Your task to perform on an android device: check battery use Image 0: 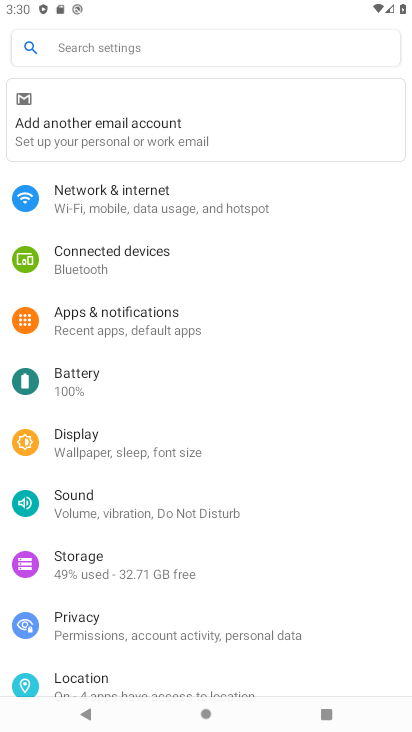
Step 0: click (71, 371)
Your task to perform on an android device: check battery use Image 1: 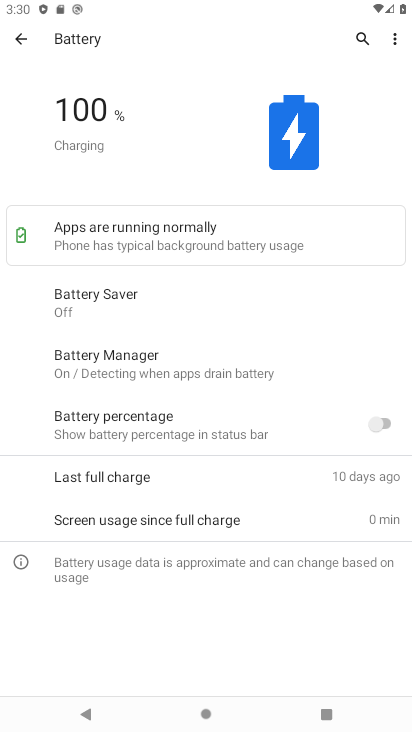
Step 1: click (394, 38)
Your task to perform on an android device: check battery use Image 2: 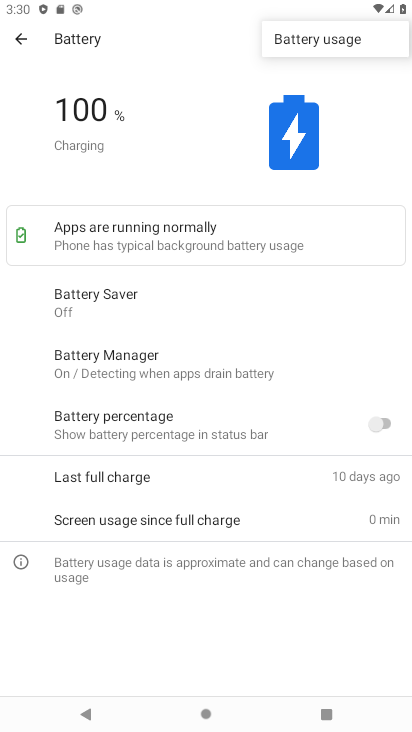
Step 2: click (313, 38)
Your task to perform on an android device: check battery use Image 3: 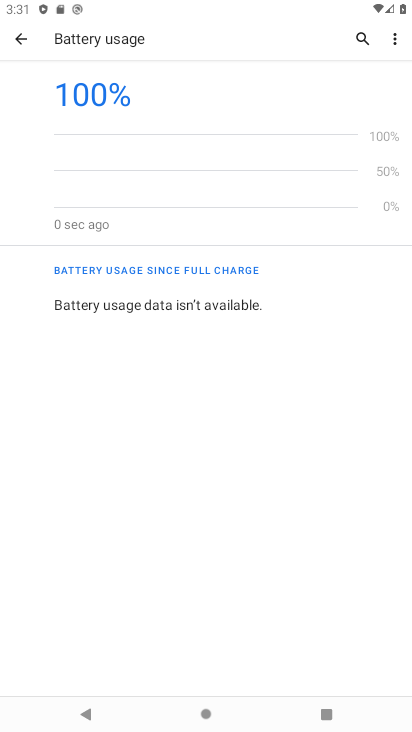
Step 3: task complete